Your task to perform on an android device: Clear the shopping cart on target.com. Image 0: 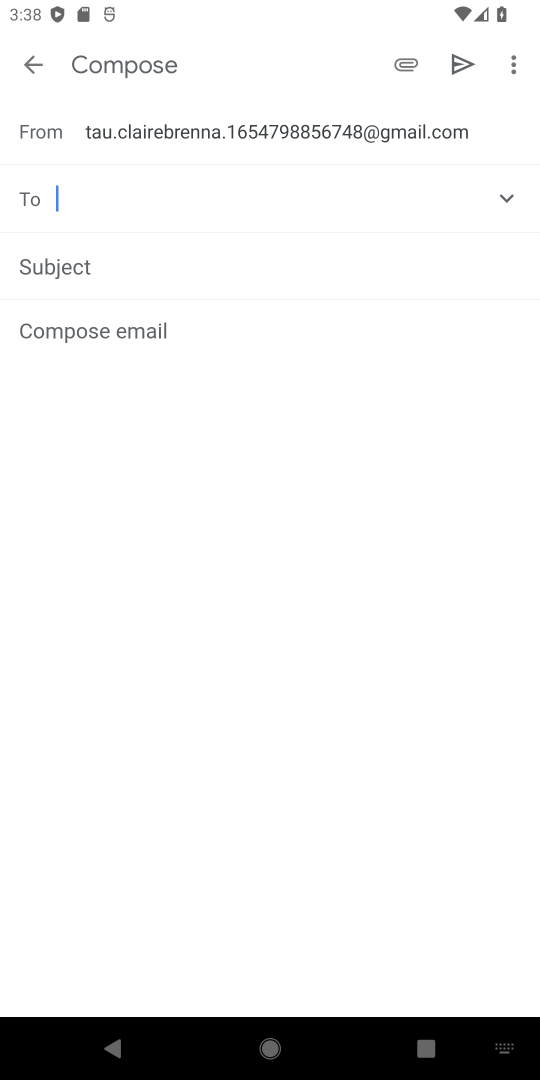
Step 0: press home button
Your task to perform on an android device: Clear the shopping cart on target.com. Image 1: 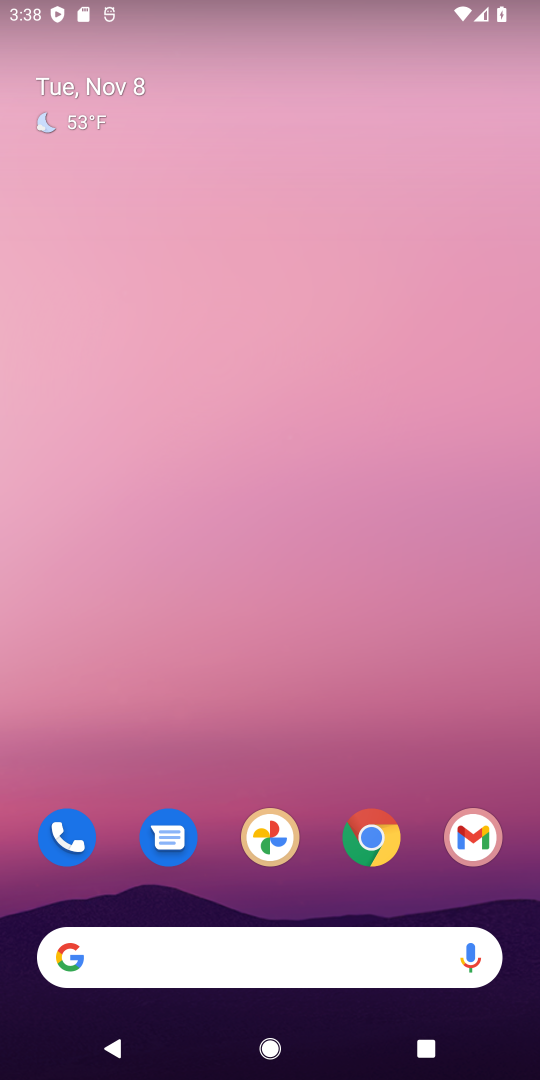
Step 1: click (366, 843)
Your task to perform on an android device: Clear the shopping cart on target.com. Image 2: 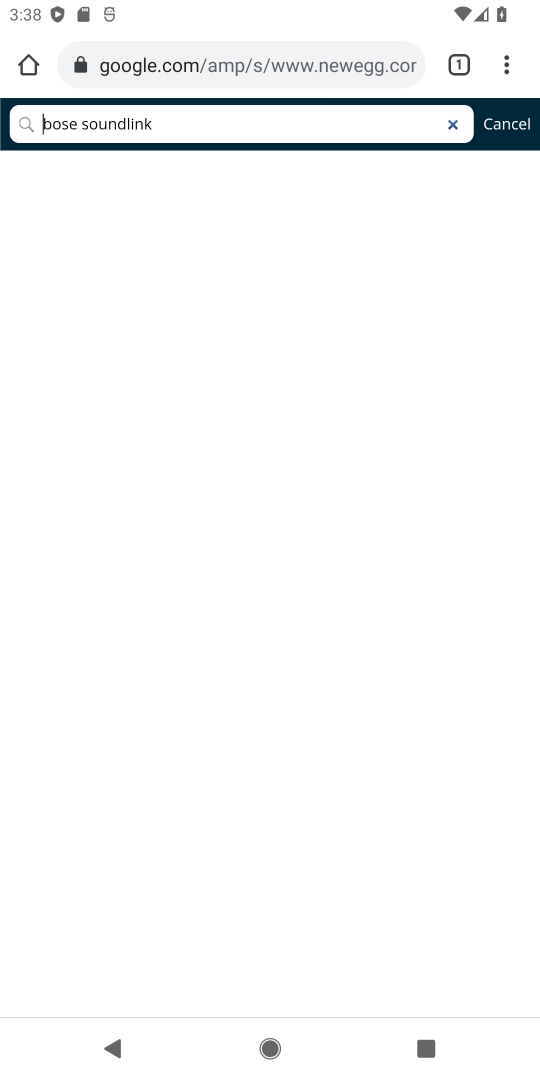
Step 2: click (227, 65)
Your task to perform on an android device: Clear the shopping cart on target.com. Image 3: 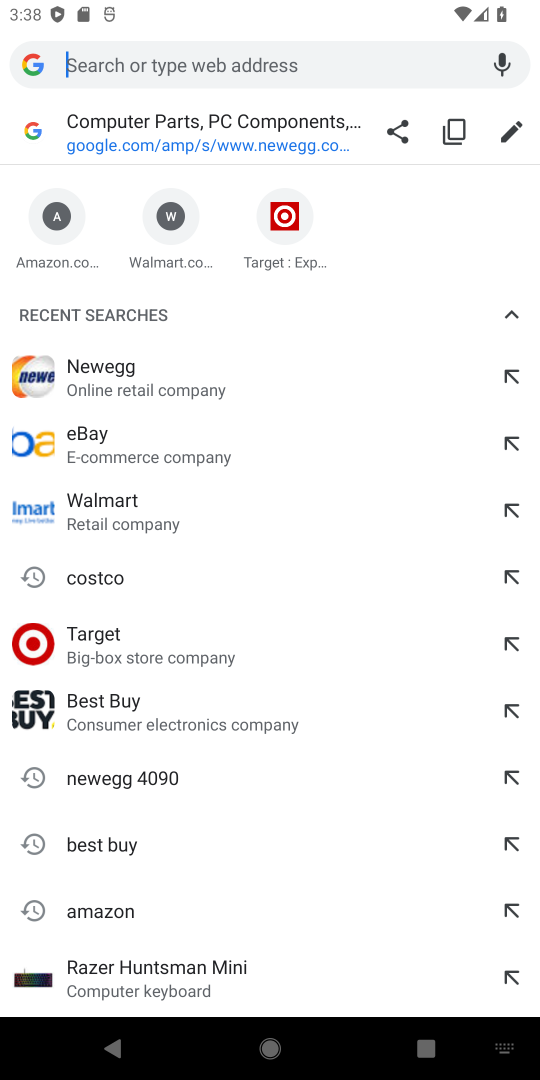
Step 3: click (91, 630)
Your task to perform on an android device: Clear the shopping cart on target.com. Image 4: 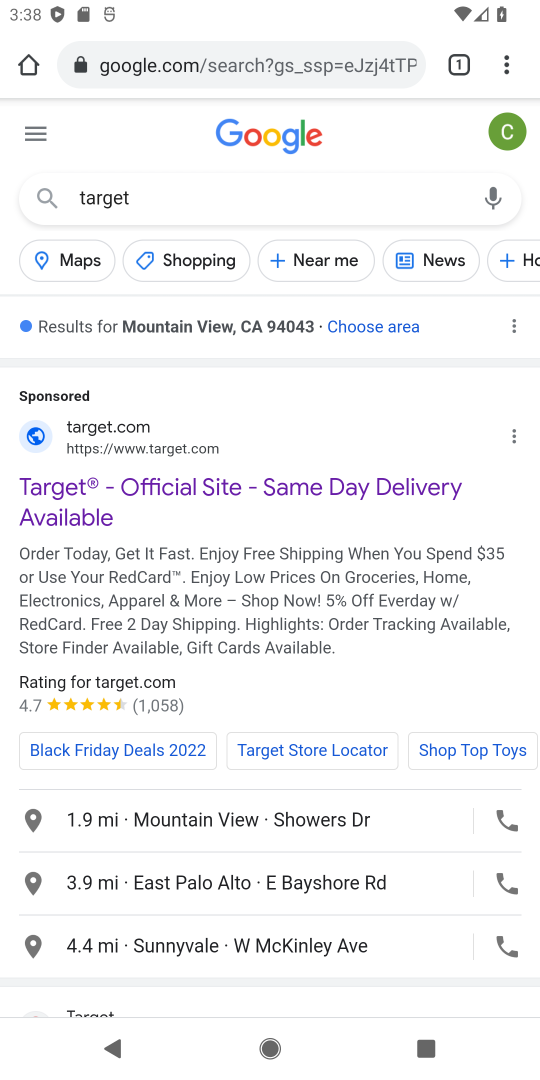
Step 4: drag from (108, 637) to (108, 543)
Your task to perform on an android device: Clear the shopping cart on target.com. Image 5: 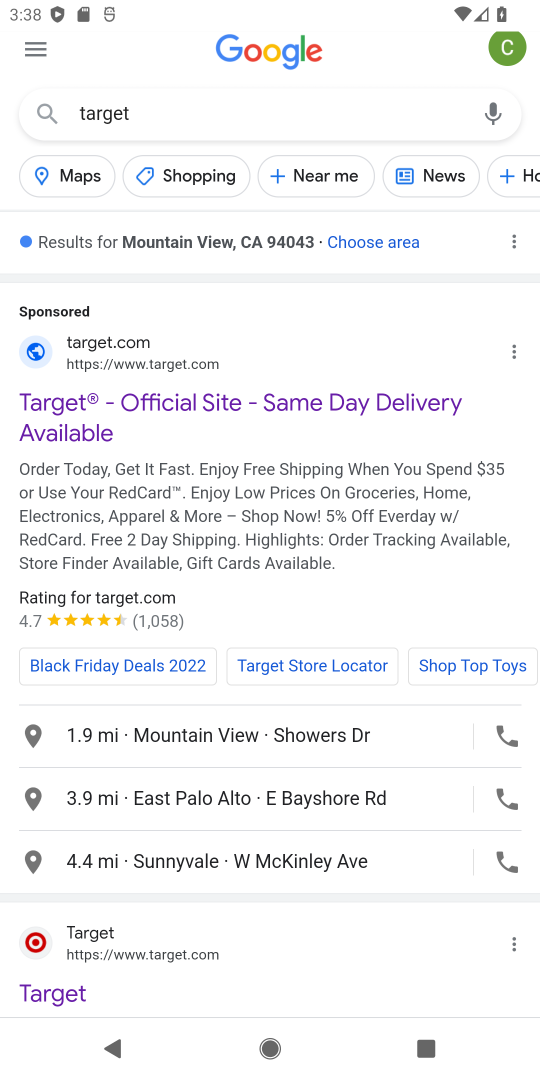
Step 5: click (207, 407)
Your task to perform on an android device: Clear the shopping cart on target.com. Image 6: 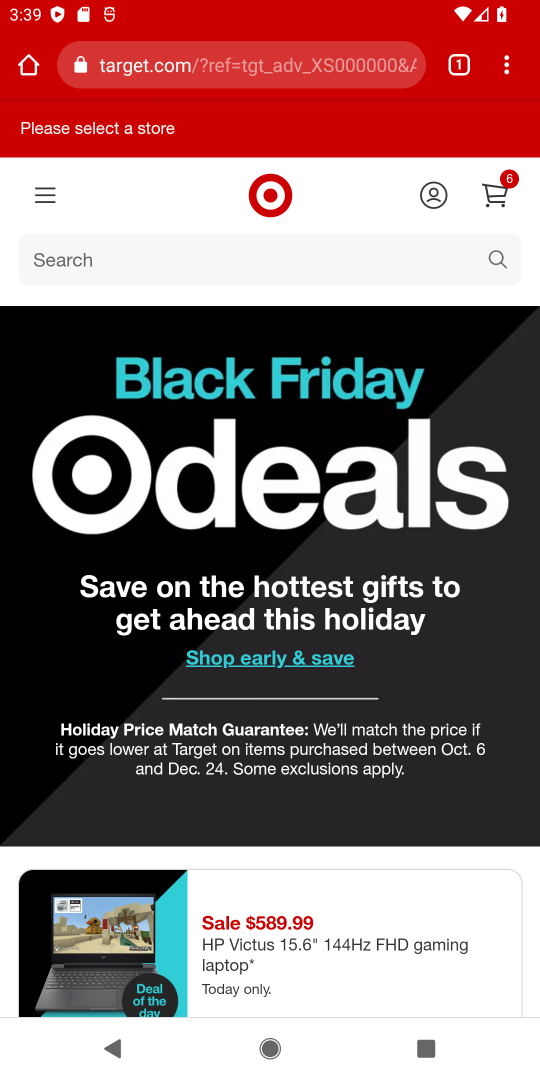
Step 6: click (496, 261)
Your task to perform on an android device: Clear the shopping cart on target.com. Image 7: 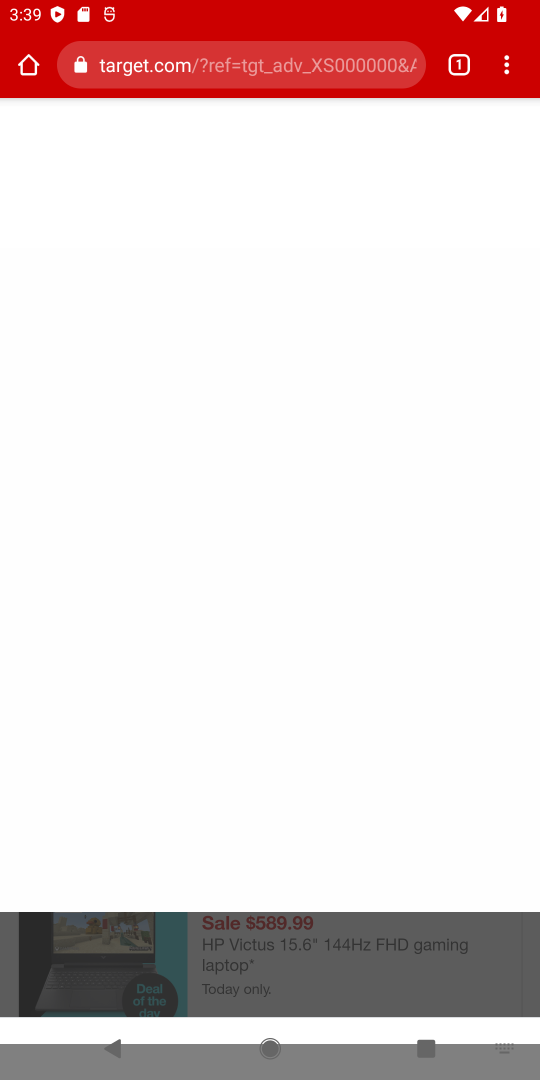
Step 7: click (512, 186)
Your task to perform on an android device: Clear the shopping cart on target.com. Image 8: 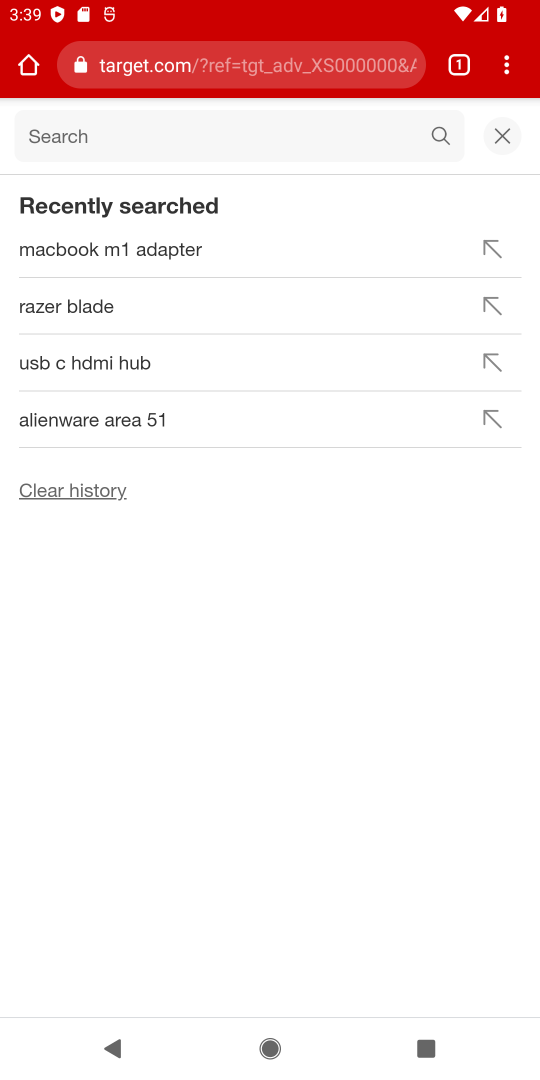
Step 8: press back button
Your task to perform on an android device: Clear the shopping cart on target.com. Image 9: 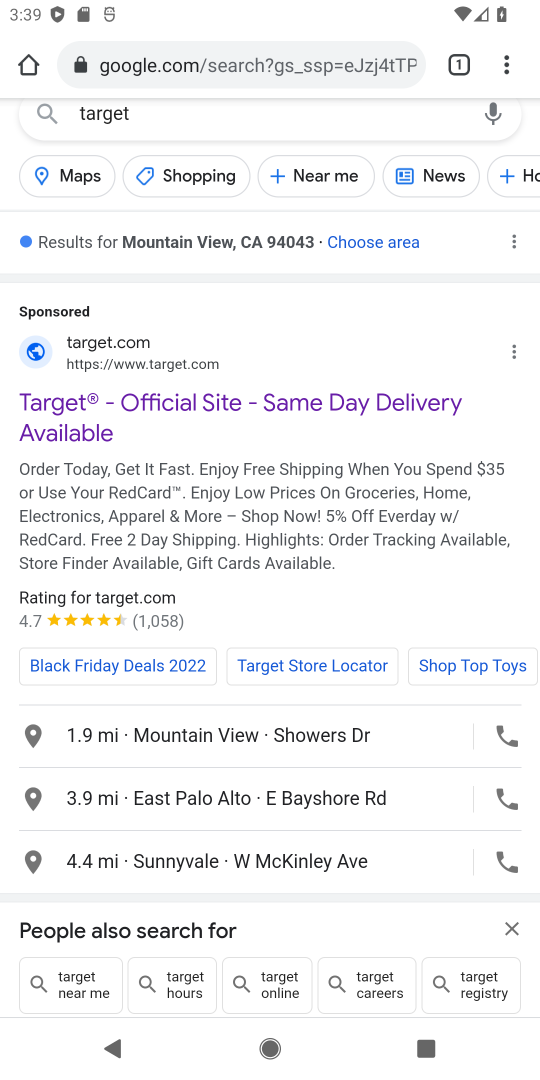
Step 9: click (171, 406)
Your task to perform on an android device: Clear the shopping cart on target.com. Image 10: 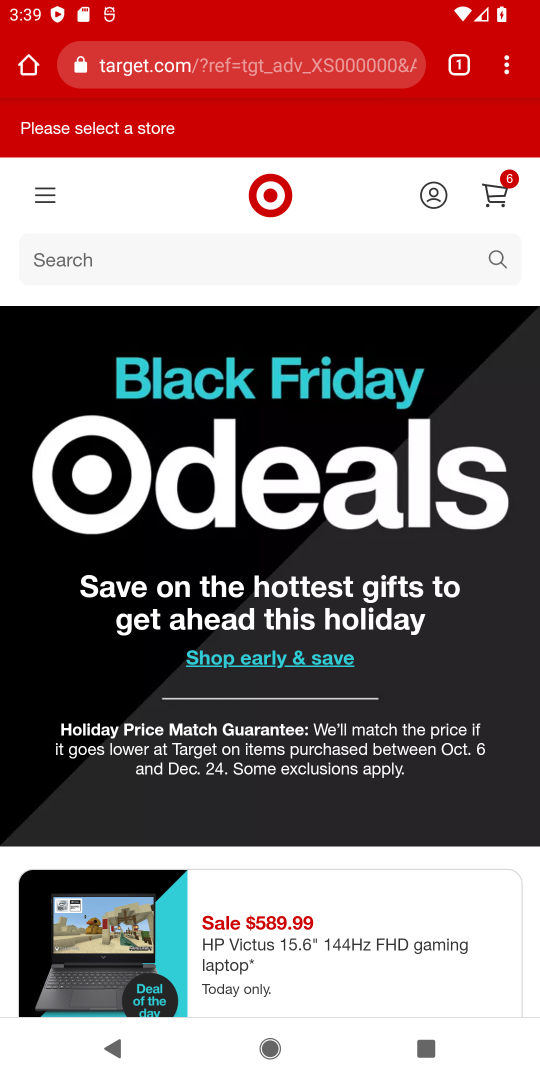
Step 10: click (500, 194)
Your task to perform on an android device: Clear the shopping cart on target.com. Image 11: 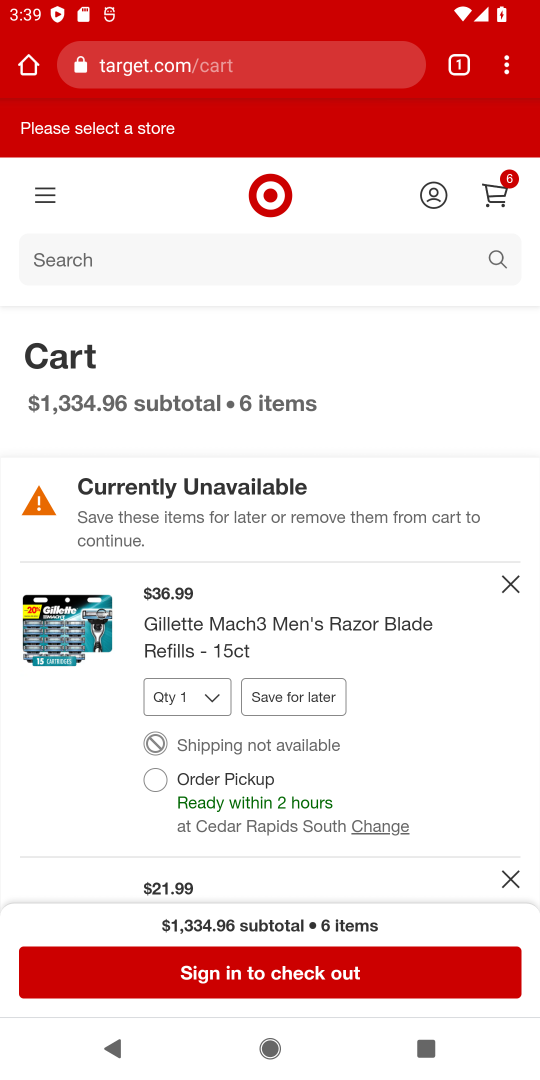
Step 11: drag from (361, 736) to (328, 431)
Your task to perform on an android device: Clear the shopping cart on target.com. Image 12: 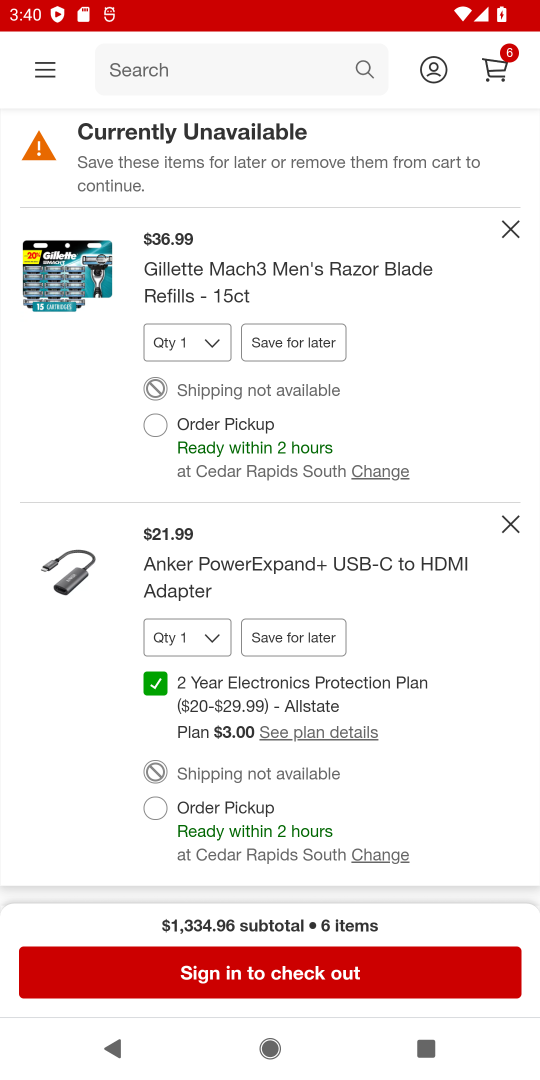
Step 12: drag from (295, 818) to (210, 291)
Your task to perform on an android device: Clear the shopping cart on target.com. Image 13: 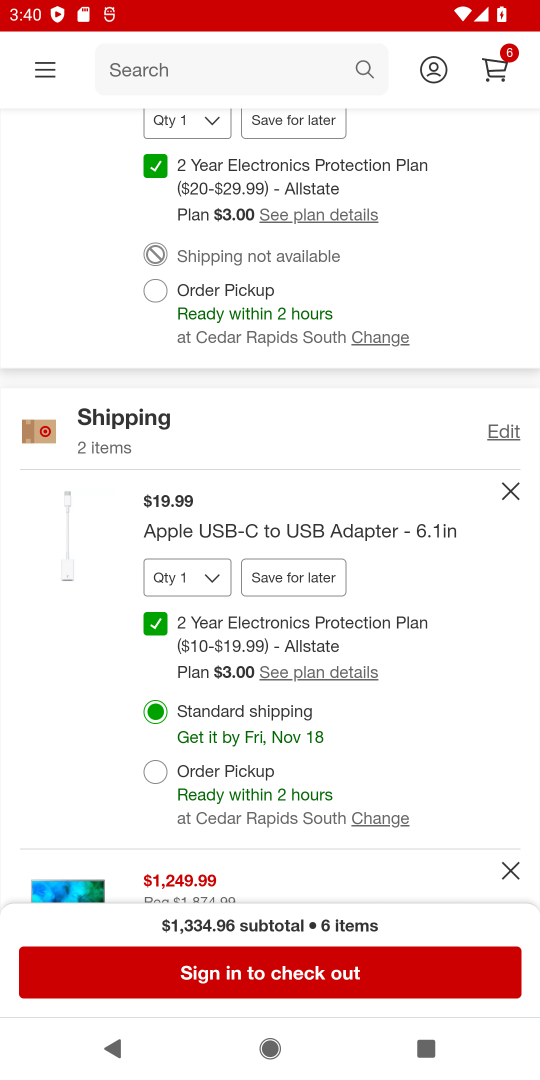
Step 13: click (513, 490)
Your task to perform on an android device: Clear the shopping cart on target.com. Image 14: 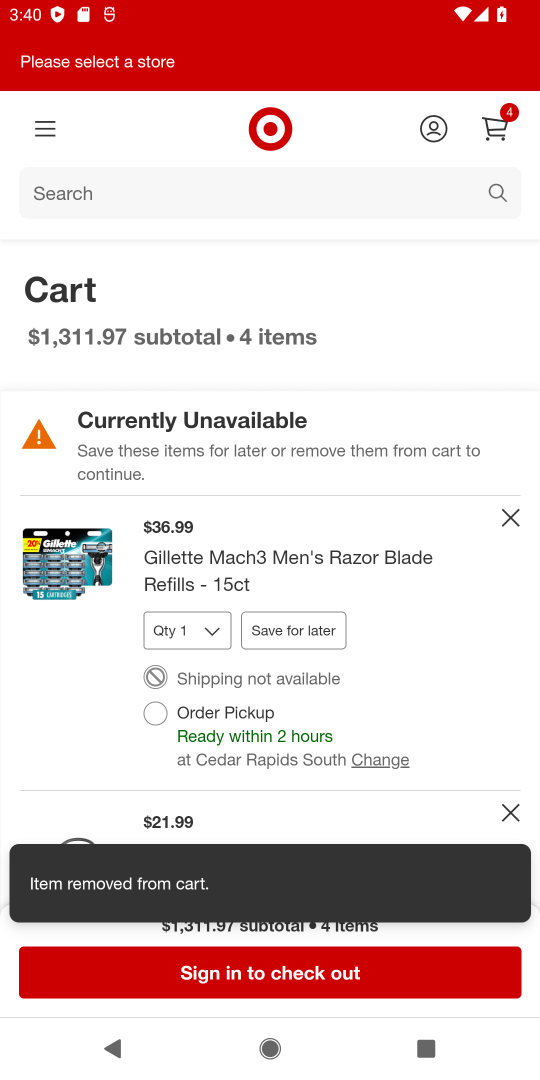
Step 14: click (508, 512)
Your task to perform on an android device: Clear the shopping cart on target.com. Image 15: 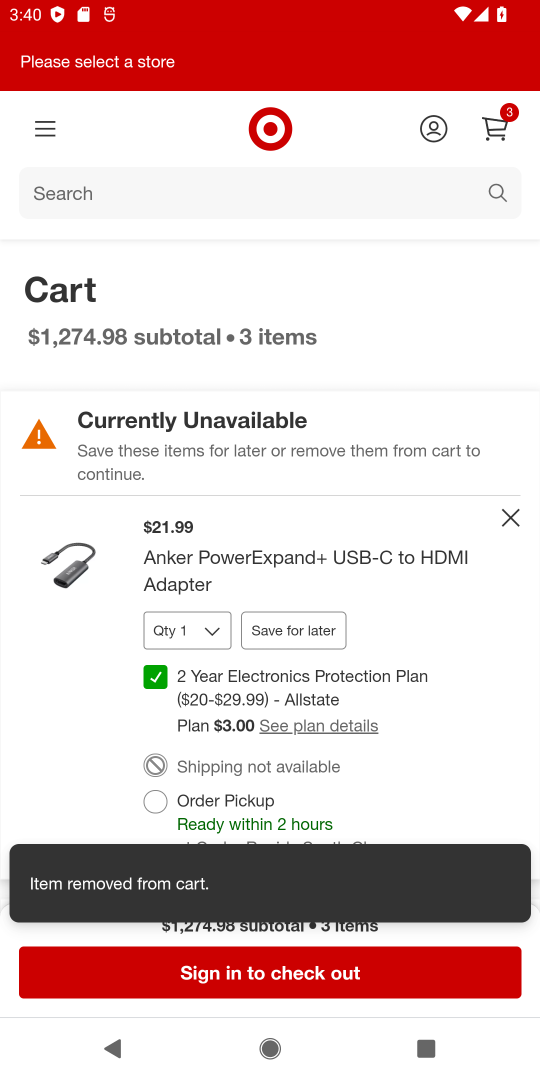
Step 15: click (513, 522)
Your task to perform on an android device: Clear the shopping cart on target.com. Image 16: 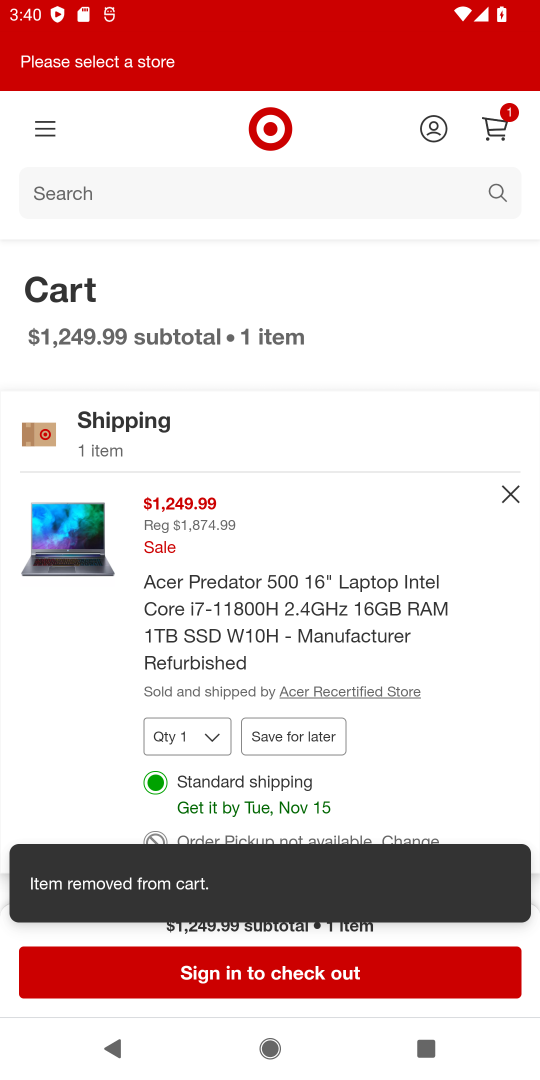
Step 16: click (511, 488)
Your task to perform on an android device: Clear the shopping cart on target.com. Image 17: 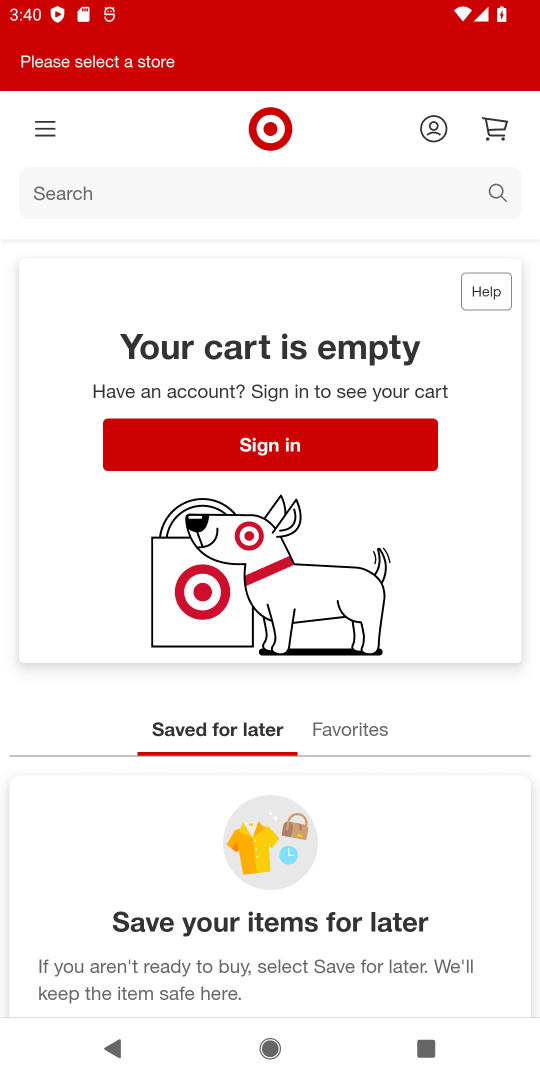
Step 17: task complete